Your task to perform on an android device: Open Chrome and go to the settings page Image 0: 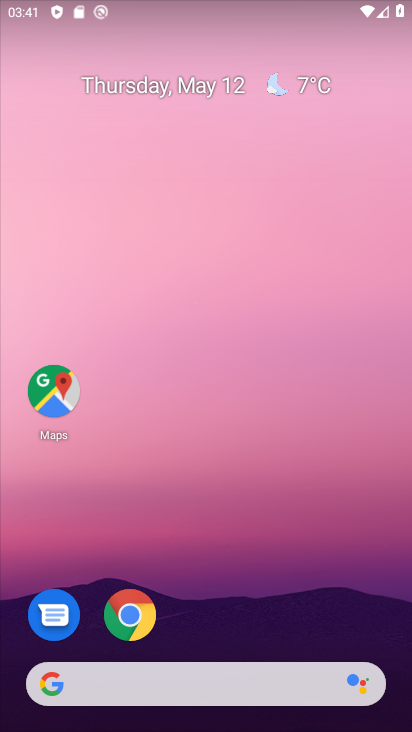
Step 0: click (113, 613)
Your task to perform on an android device: Open Chrome and go to the settings page Image 1: 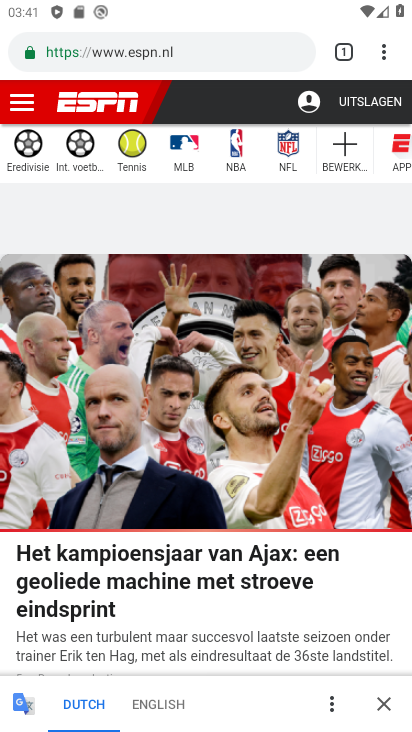
Step 1: click (387, 41)
Your task to perform on an android device: Open Chrome and go to the settings page Image 2: 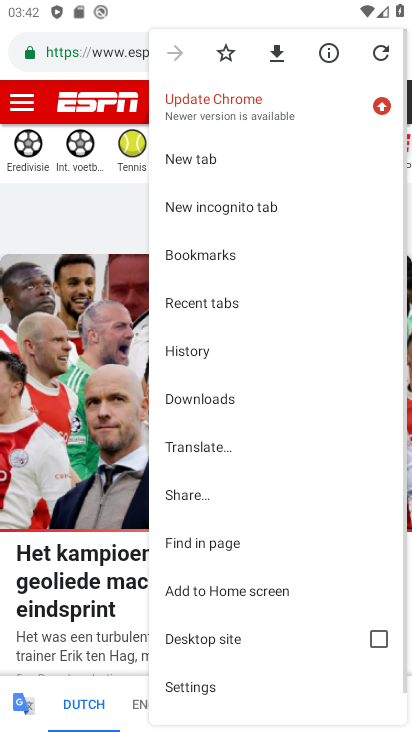
Step 2: drag from (253, 598) to (238, 356)
Your task to perform on an android device: Open Chrome and go to the settings page Image 3: 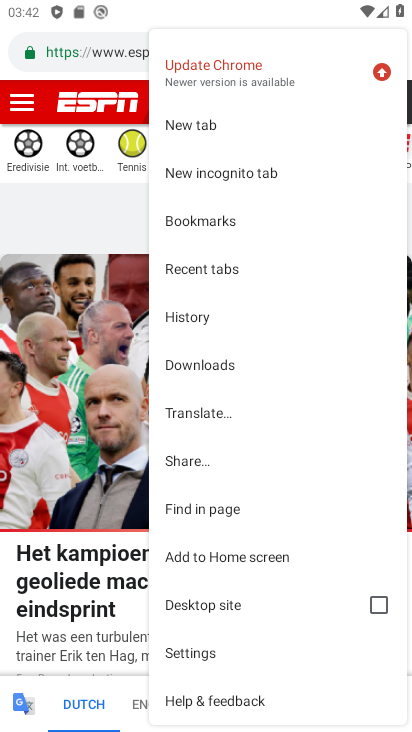
Step 3: click (203, 649)
Your task to perform on an android device: Open Chrome and go to the settings page Image 4: 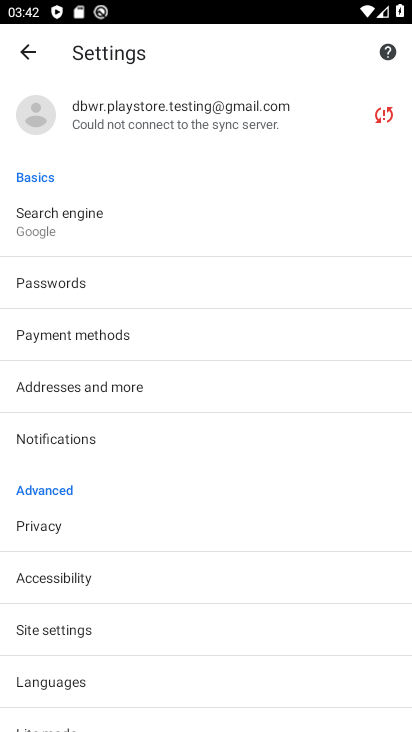
Step 4: task complete